Your task to perform on an android device: add a contact Image 0: 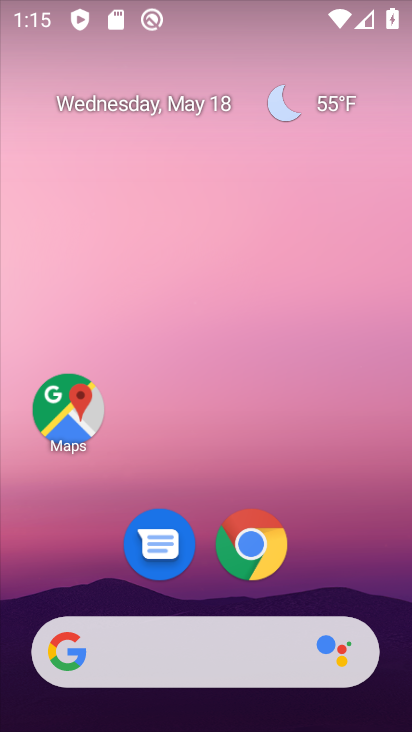
Step 0: drag from (326, 512) to (284, 370)
Your task to perform on an android device: add a contact Image 1: 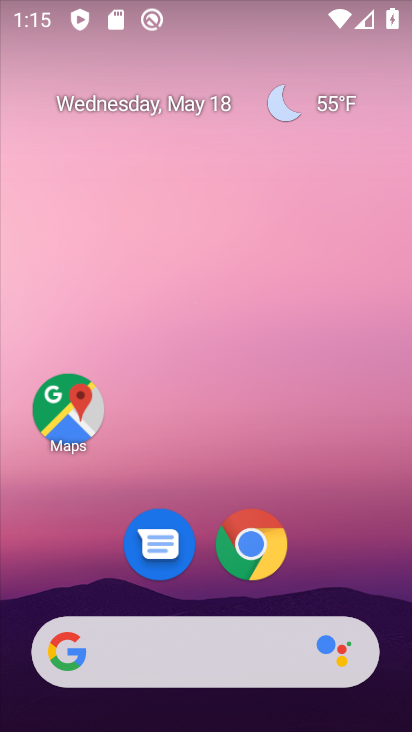
Step 1: drag from (314, 559) to (200, 77)
Your task to perform on an android device: add a contact Image 2: 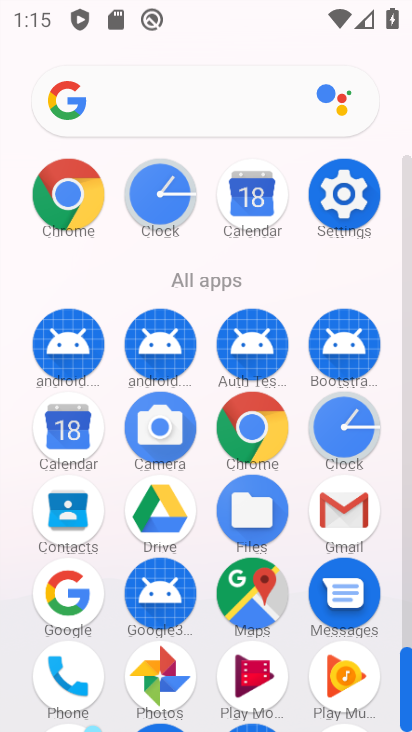
Step 2: click (59, 511)
Your task to perform on an android device: add a contact Image 3: 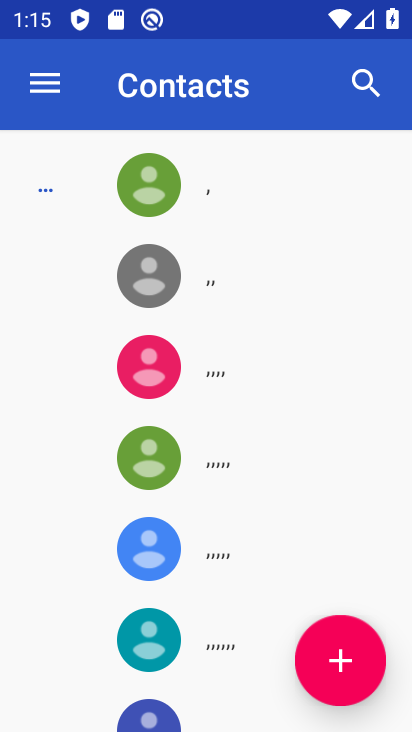
Step 3: click (348, 653)
Your task to perform on an android device: add a contact Image 4: 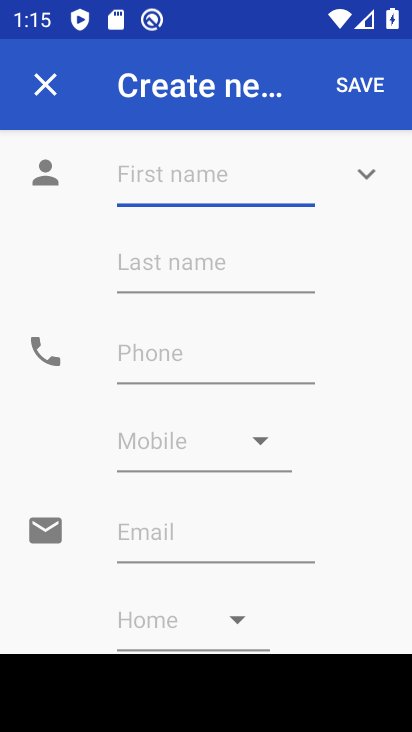
Step 4: type "hgfjge"
Your task to perform on an android device: add a contact Image 5: 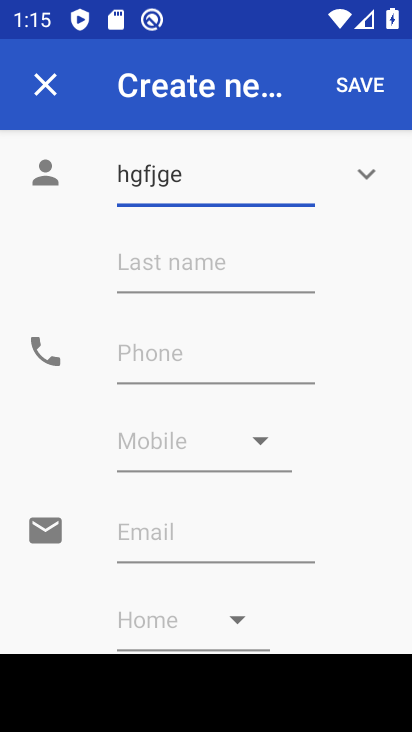
Step 5: click (182, 367)
Your task to perform on an android device: add a contact Image 6: 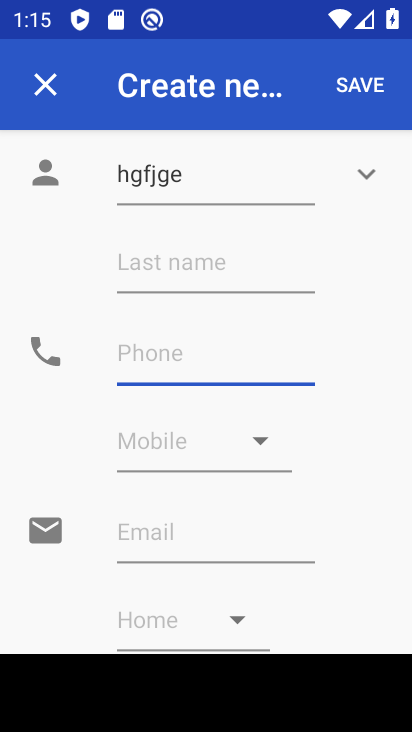
Step 6: type "56879756467"
Your task to perform on an android device: add a contact Image 7: 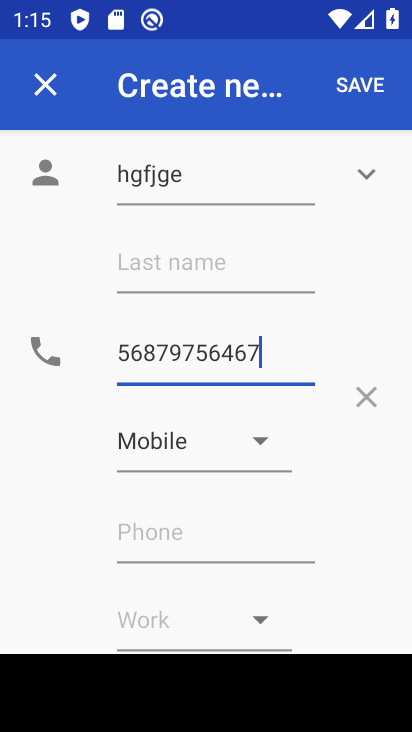
Step 7: click (347, 87)
Your task to perform on an android device: add a contact Image 8: 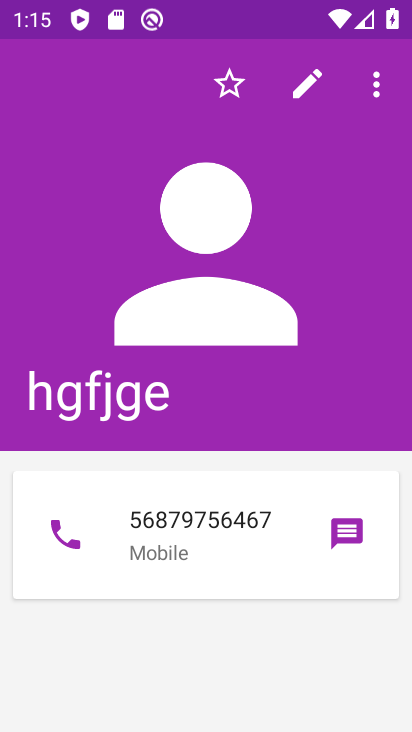
Step 8: task complete